Your task to perform on an android device: check battery use Image 0: 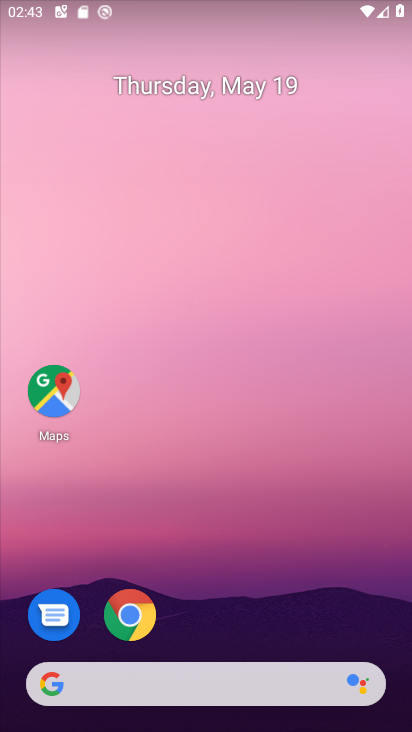
Step 0: drag from (223, 553) to (190, 43)
Your task to perform on an android device: check battery use Image 1: 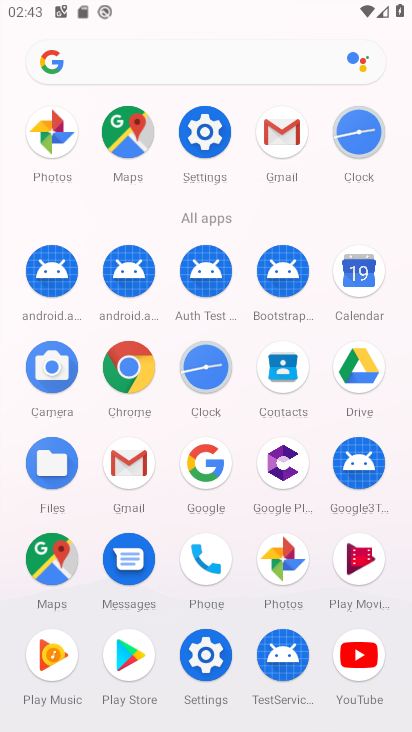
Step 1: drag from (3, 467) to (12, 256)
Your task to perform on an android device: check battery use Image 2: 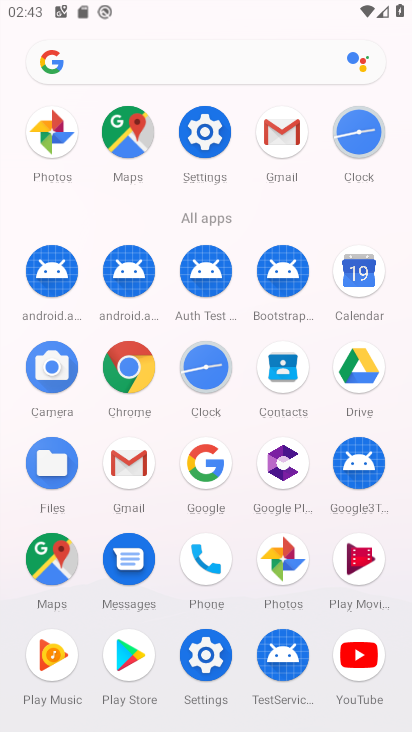
Step 2: click (207, 651)
Your task to perform on an android device: check battery use Image 3: 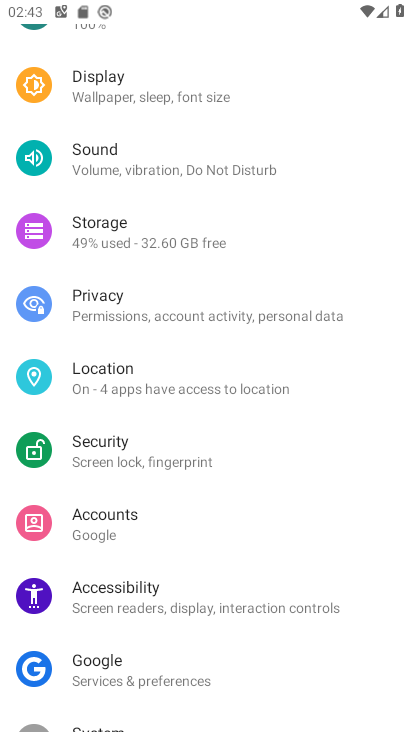
Step 3: drag from (226, 122) to (198, 558)
Your task to perform on an android device: check battery use Image 4: 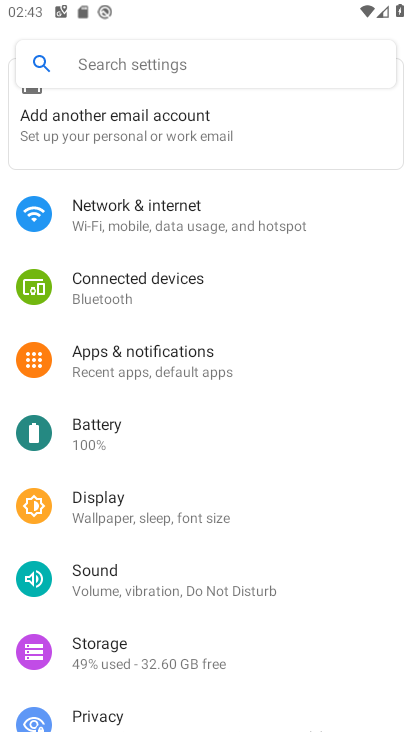
Step 4: drag from (206, 574) to (216, 366)
Your task to perform on an android device: check battery use Image 5: 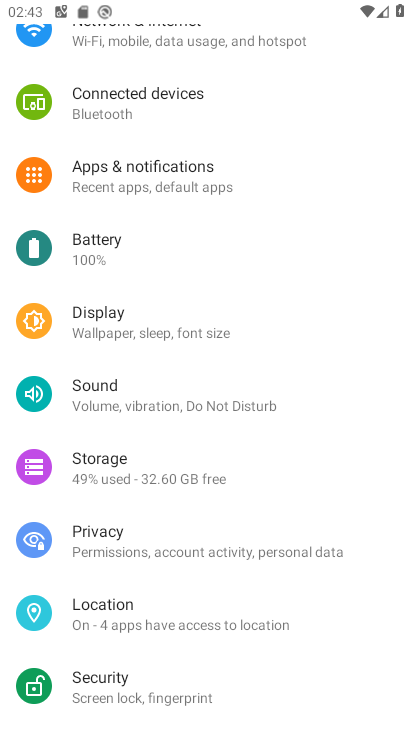
Step 5: click (125, 237)
Your task to perform on an android device: check battery use Image 6: 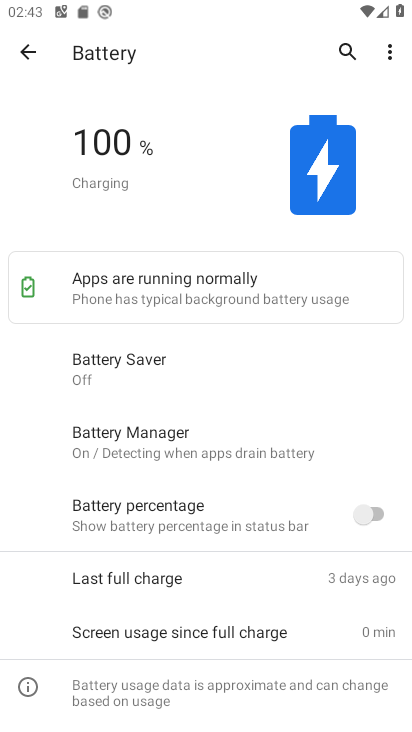
Step 6: task complete